Your task to perform on an android device: toggle location history Image 0: 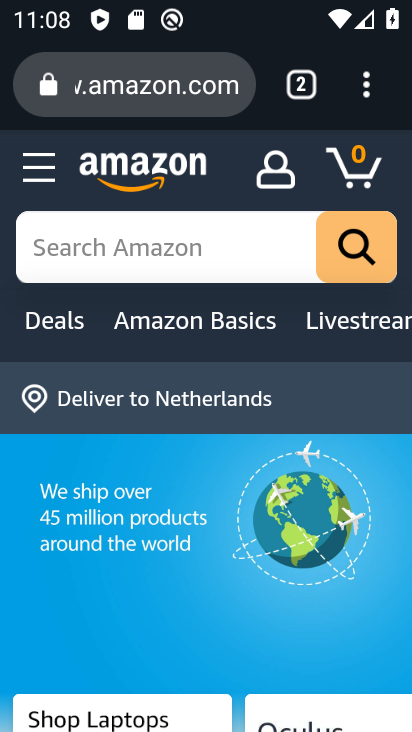
Step 0: press home button
Your task to perform on an android device: toggle location history Image 1: 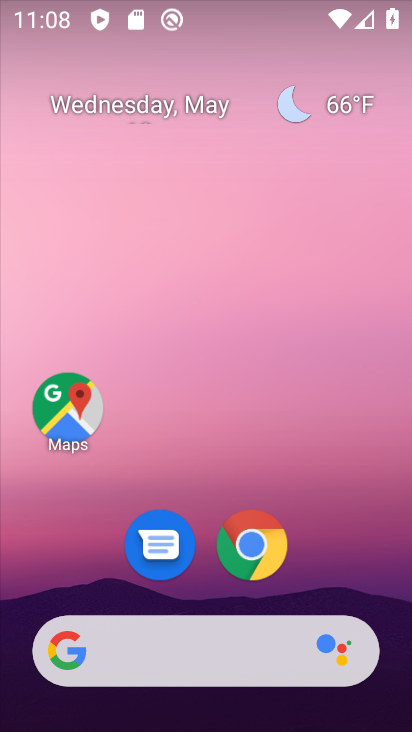
Step 1: drag from (205, 718) to (179, 14)
Your task to perform on an android device: toggle location history Image 2: 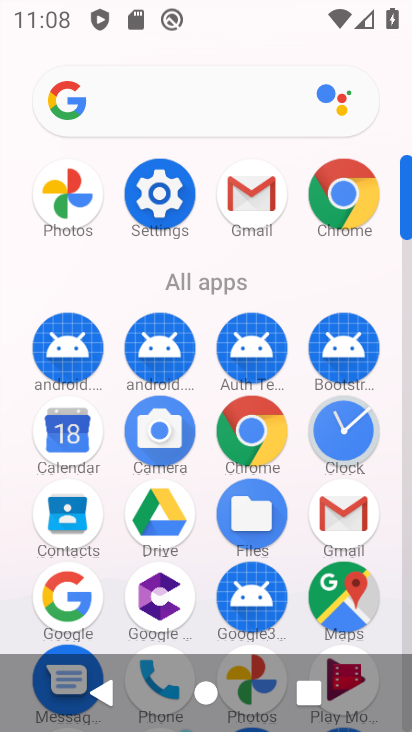
Step 2: click (148, 181)
Your task to perform on an android device: toggle location history Image 3: 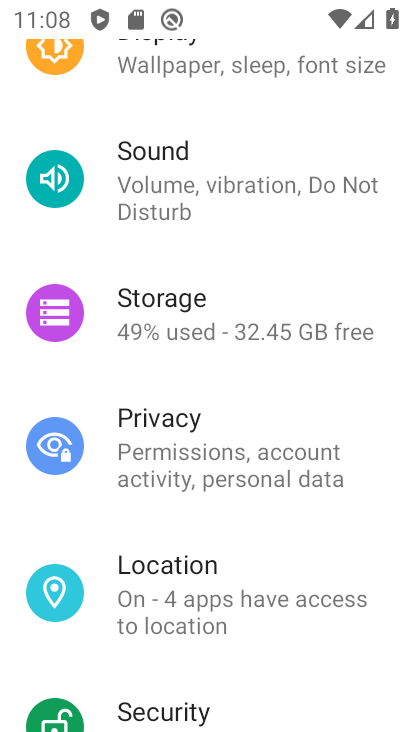
Step 3: click (241, 601)
Your task to perform on an android device: toggle location history Image 4: 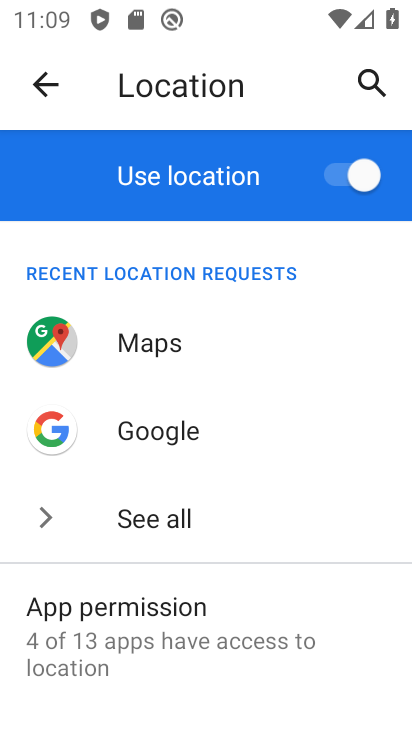
Step 4: click (372, 180)
Your task to perform on an android device: toggle location history Image 5: 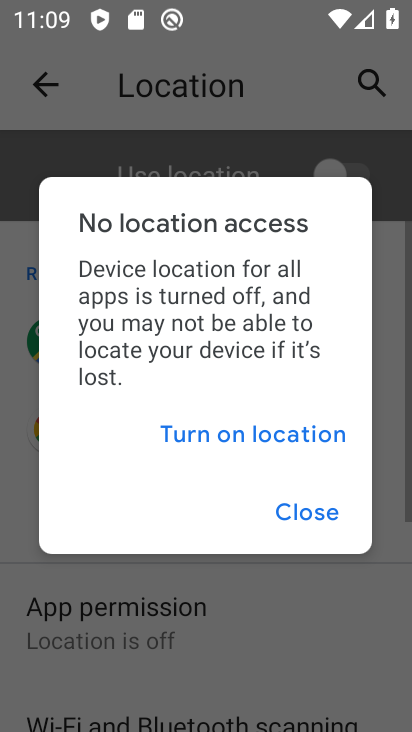
Step 5: task complete